Your task to perform on an android device: What's on my calendar today? Image 0: 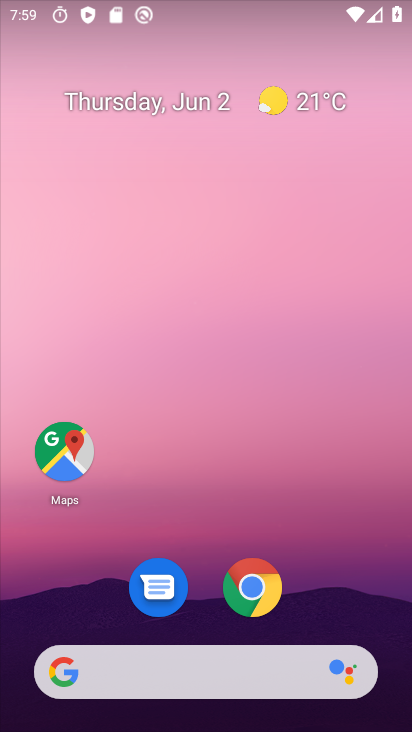
Step 0: drag from (339, 621) to (344, 0)
Your task to perform on an android device: What's on my calendar today? Image 1: 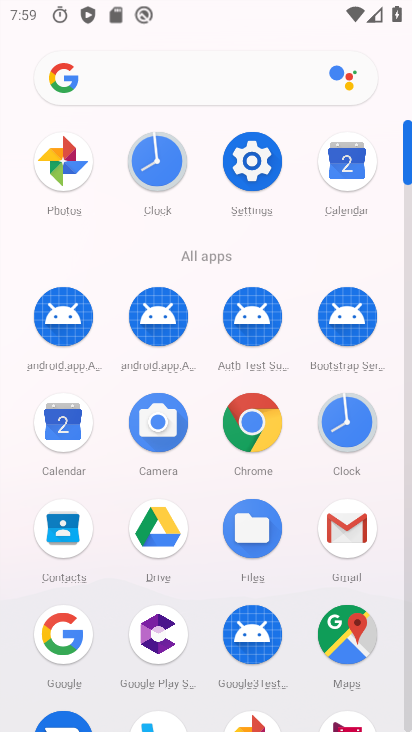
Step 1: click (344, 168)
Your task to perform on an android device: What's on my calendar today? Image 2: 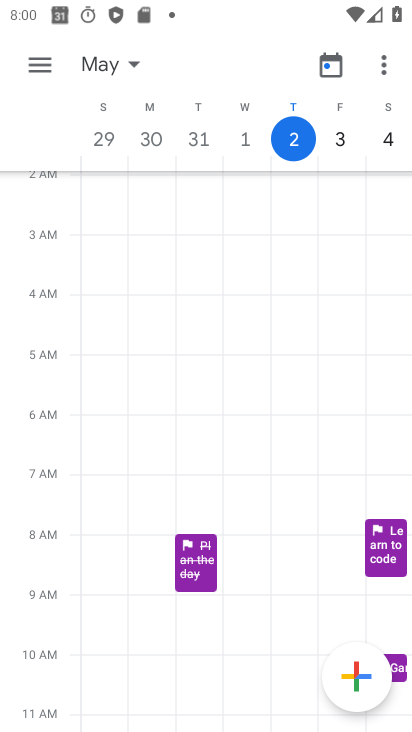
Step 2: click (46, 67)
Your task to perform on an android device: What's on my calendar today? Image 3: 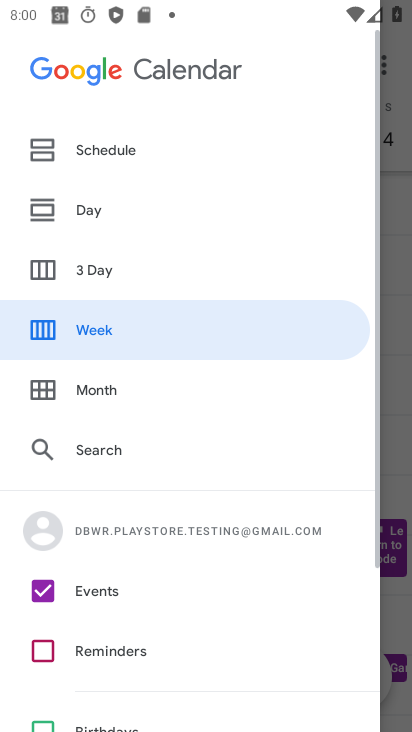
Step 3: click (67, 160)
Your task to perform on an android device: What's on my calendar today? Image 4: 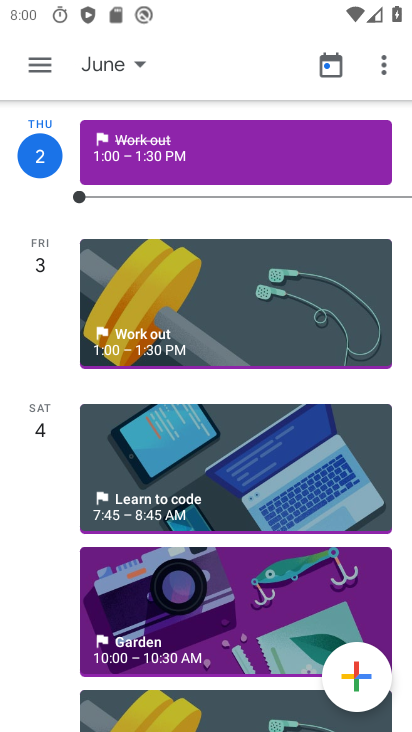
Step 4: click (188, 164)
Your task to perform on an android device: What's on my calendar today? Image 5: 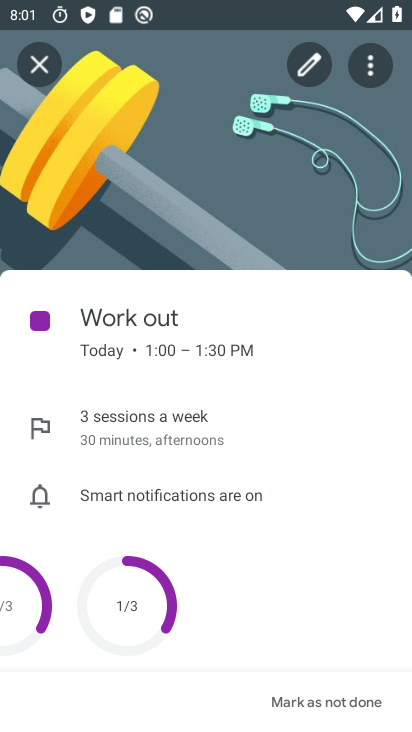
Step 5: task complete